Your task to perform on an android device: empty trash in the gmail app Image 0: 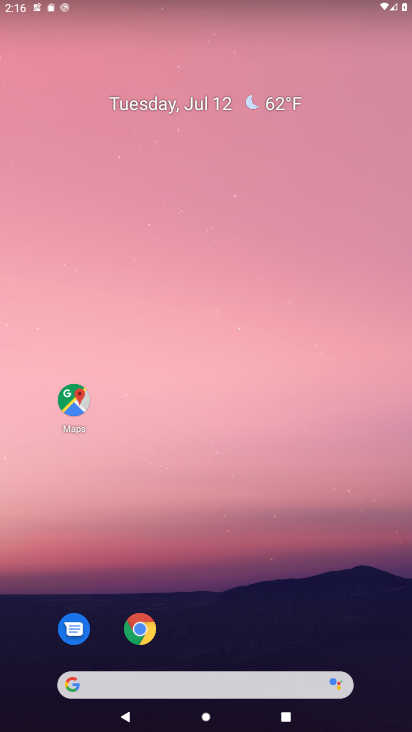
Step 0: press home button
Your task to perform on an android device: empty trash in the gmail app Image 1: 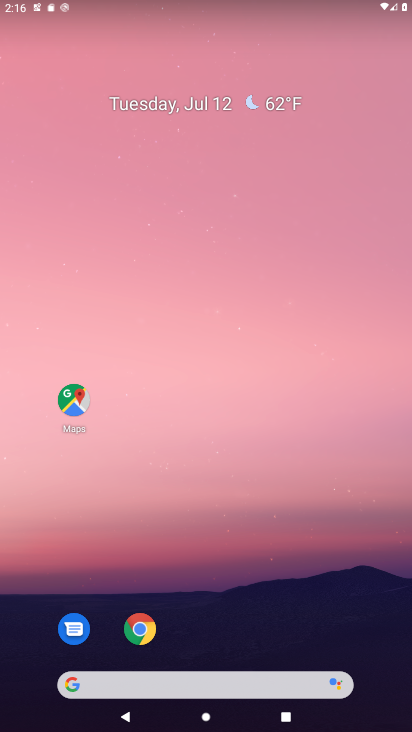
Step 1: drag from (214, 634) to (247, 59)
Your task to perform on an android device: empty trash in the gmail app Image 2: 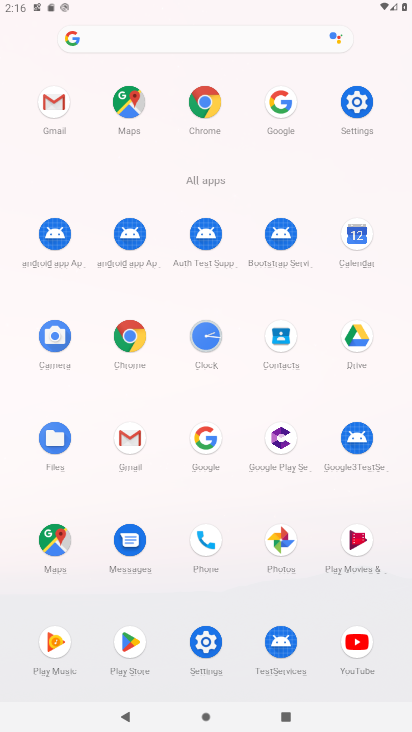
Step 2: click (129, 433)
Your task to perform on an android device: empty trash in the gmail app Image 3: 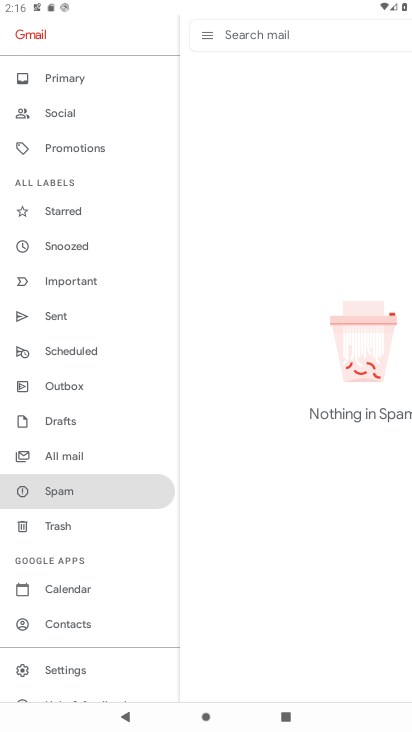
Step 3: click (80, 525)
Your task to perform on an android device: empty trash in the gmail app Image 4: 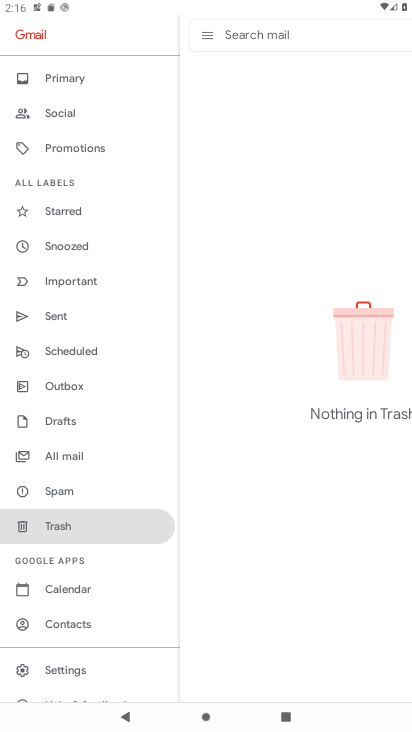
Step 4: task complete